Your task to perform on an android device: Open Google Maps and go to "Timeline" Image 0: 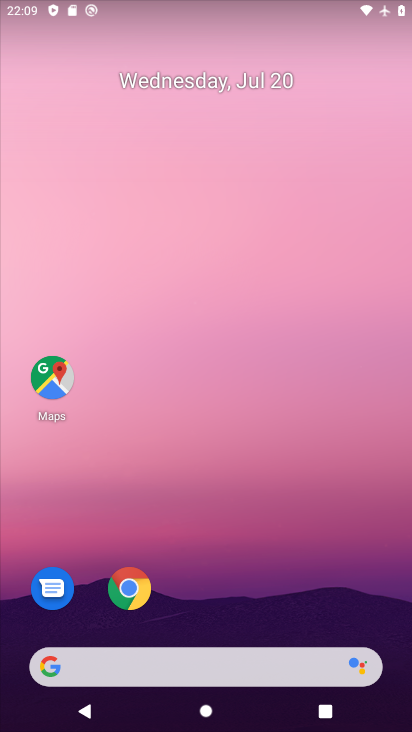
Step 0: click (51, 376)
Your task to perform on an android device: Open Google Maps and go to "Timeline" Image 1: 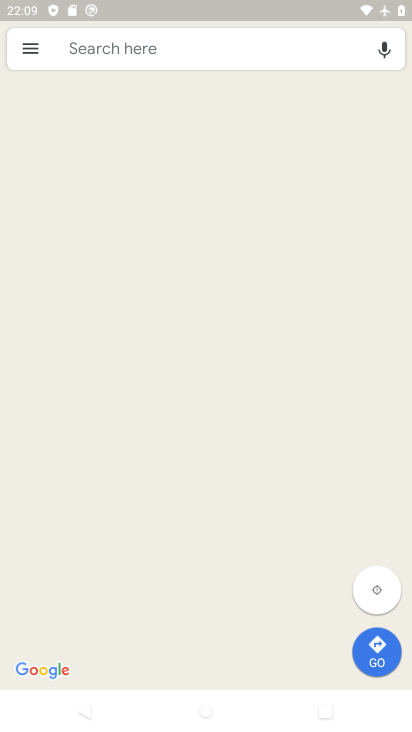
Step 1: click (30, 50)
Your task to perform on an android device: Open Google Maps and go to "Timeline" Image 2: 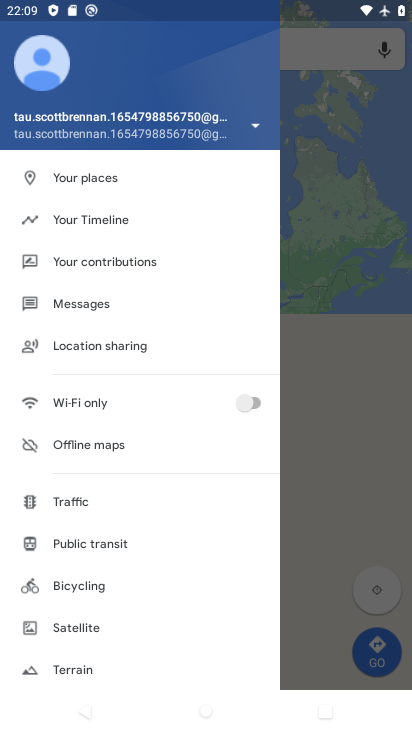
Step 2: click (86, 214)
Your task to perform on an android device: Open Google Maps and go to "Timeline" Image 3: 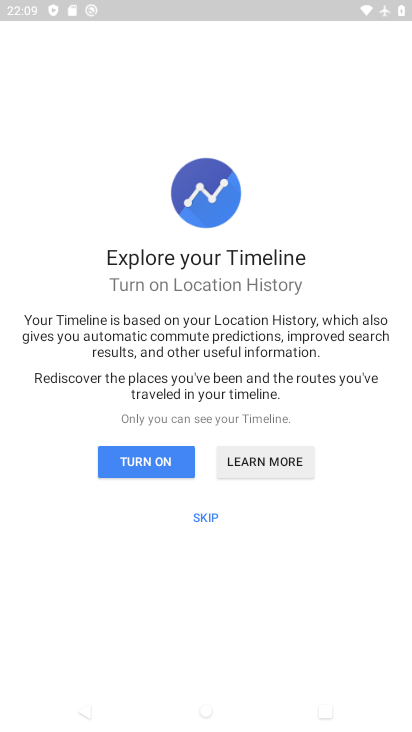
Step 3: click (201, 515)
Your task to perform on an android device: Open Google Maps and go to "Timeline" Image 4: 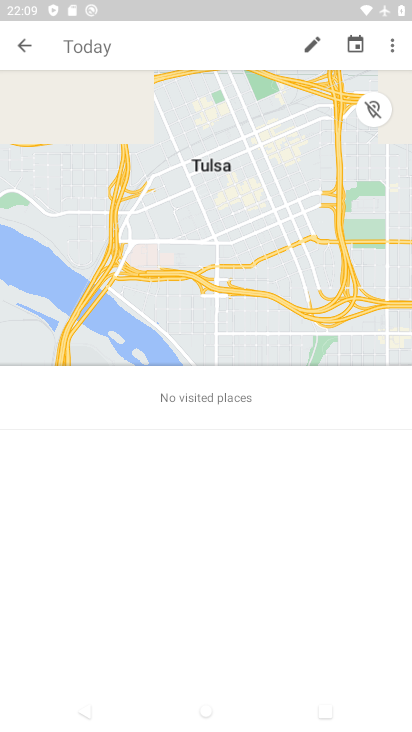
Step 4: task complete